Your task to perform on an android device: Show me popular games on the Play Store Image 0: 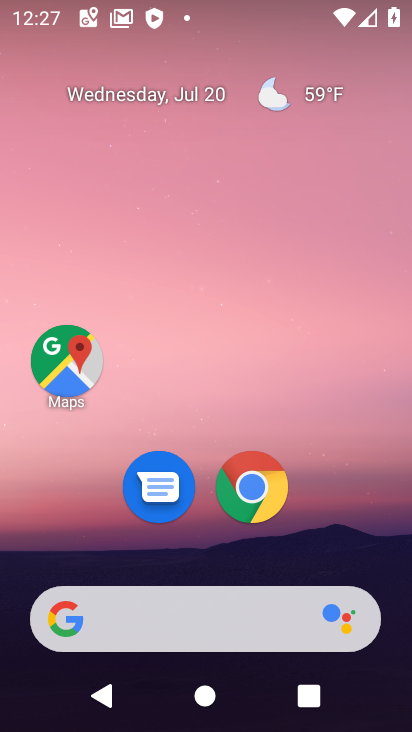
Step 0: drag from (178, 551) to (258, 7)
Your task to perform on an android device: Show me popular games on the Play Store Image 1: 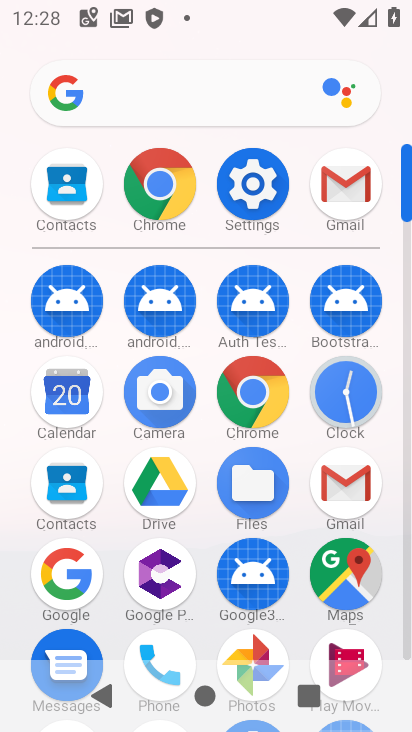
Step 1: drag from (185, 553) to (260, 119)
Your task to perform on an android device: Show me popular games on the Play Store Image 2: 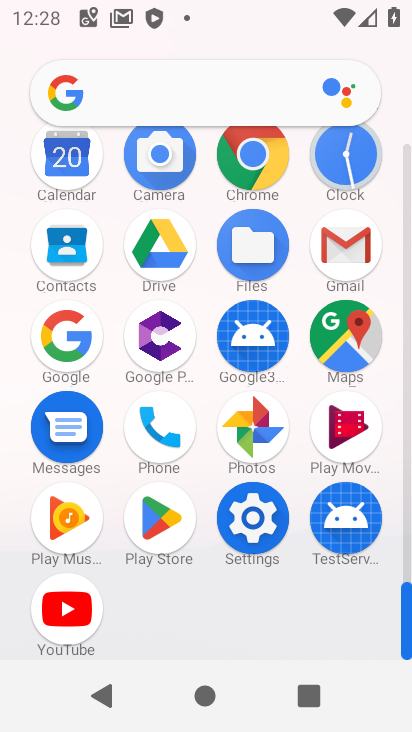
Step 2: click (141, 508)
Your task to perform on an android device: Show me popular games on the Play Store Image 3: 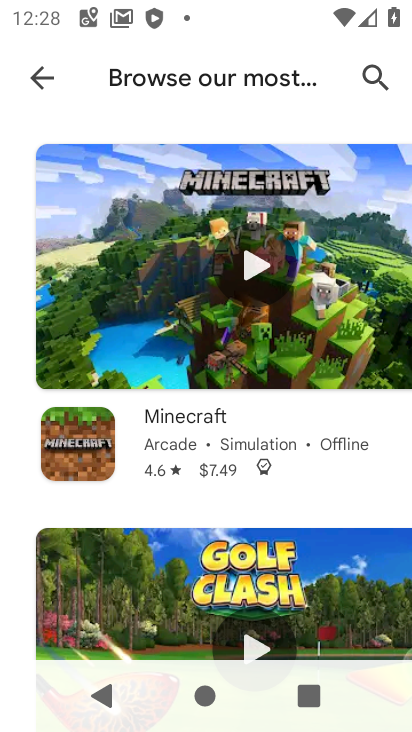
Step 3: click (36, 85)
Your task to perform on an android device: Show me popular games on the Play Store Image 4: 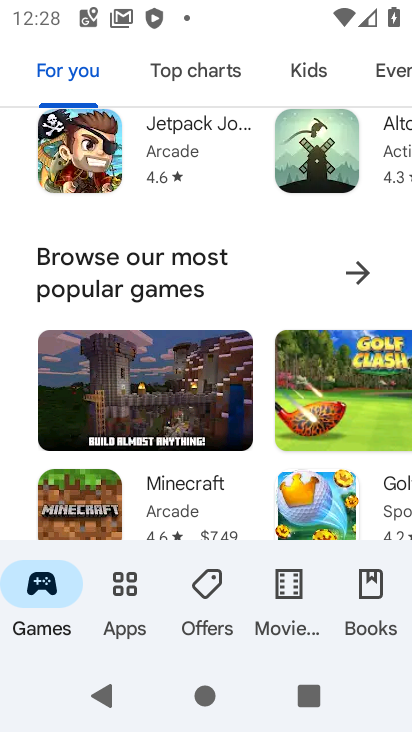
Step 4: click (343, 272)
Your task to perform on an android device: Show me popular games on the Play Store Image 5: 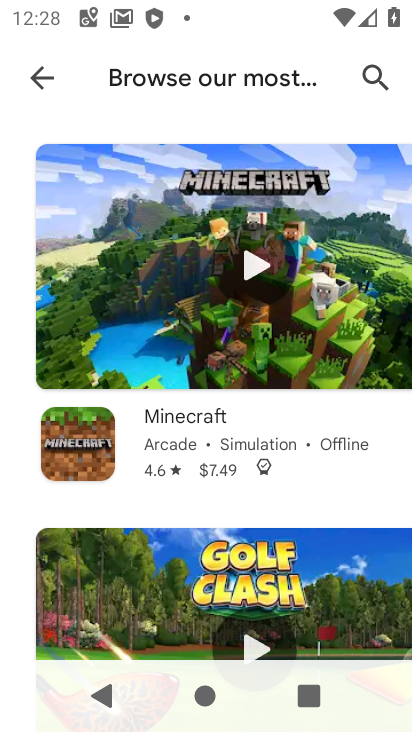
Step 5: task complete